Your task to perform on an android device: Open battery settings Image 0: 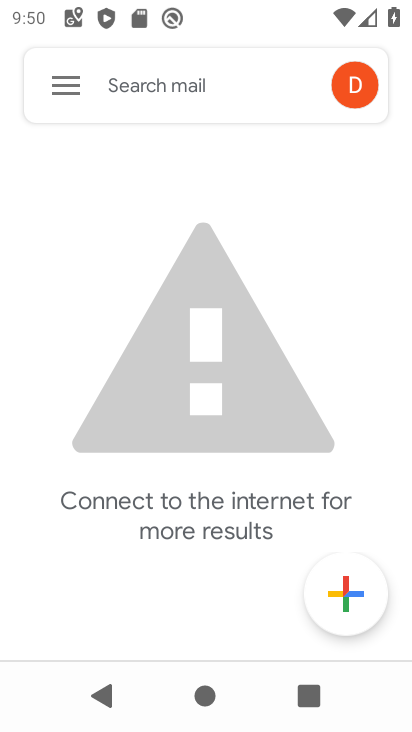
Step 0: press home button
Your task to perform on an android device: Open battery settings Image 1: 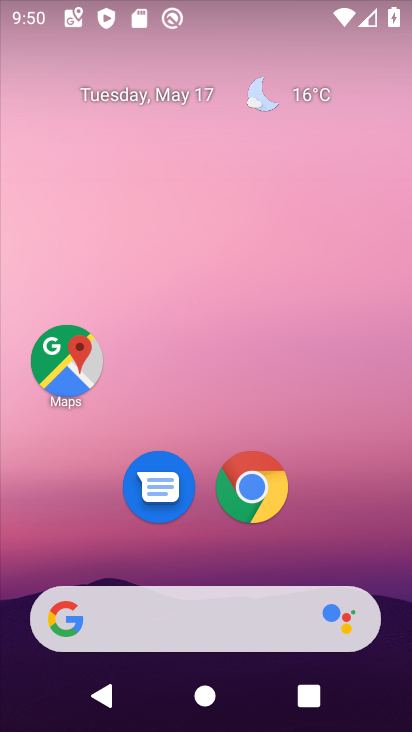
Step 1: drag from (213, 557) to (186, 41)
Your task to perform on an android device: Open battery settings Image 2: 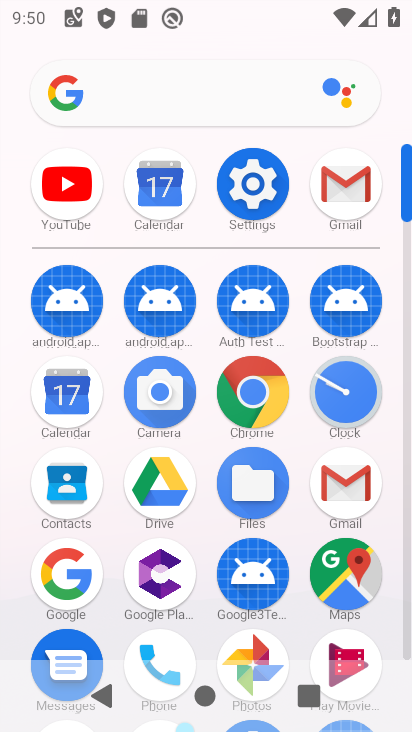
Step 2: click (255, 206)
Your task to perform on an android device: Open battery settings Image 3: 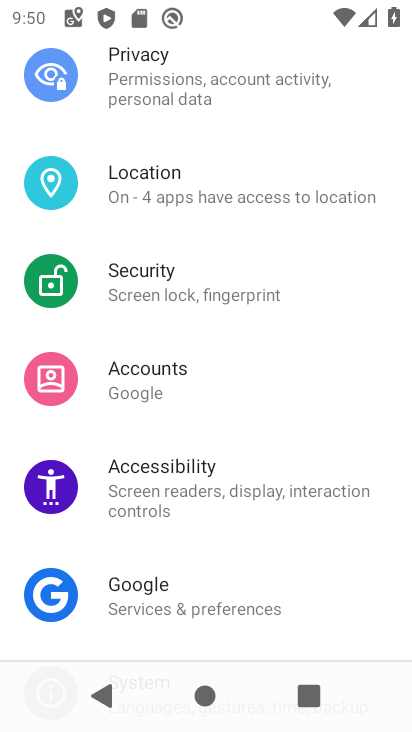
Step 3: drag from (182, 291) to (183, 555)
Your task to perform on an android device: Open battery settings Image 4: 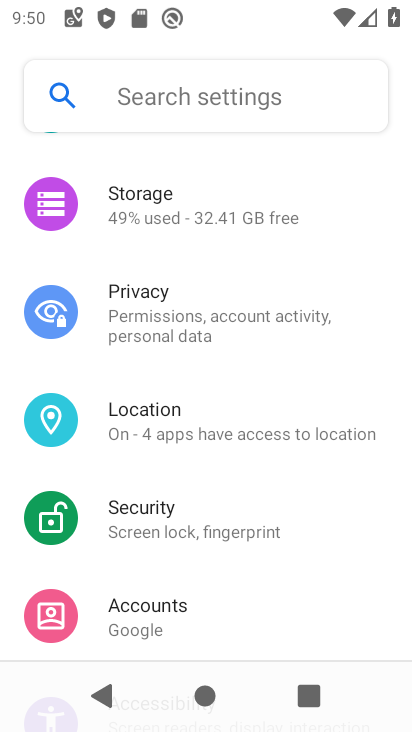
Step 4: drag from (142, 280) to (127, 567)
Your task to perform on an android device: Open battery settings Image 5: 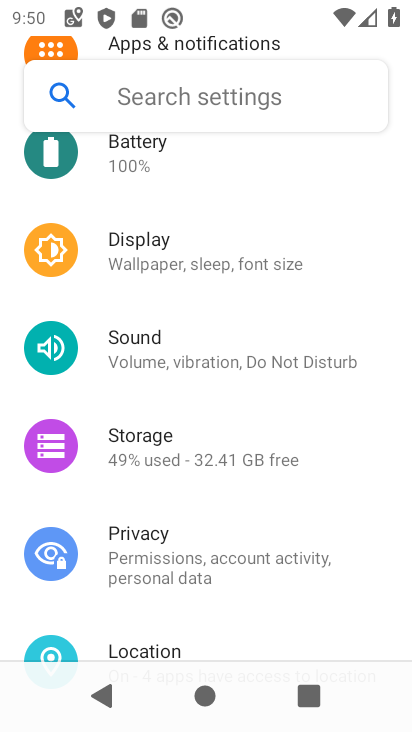
Step 5: click (152, 155)
Your task to perform on an android device: Open battery settings Image 6: 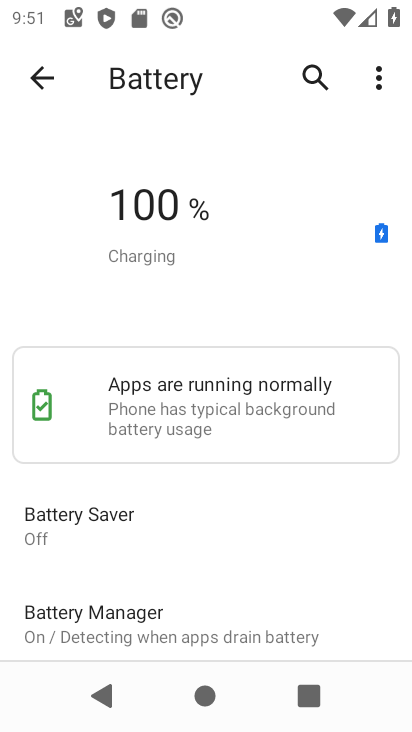
Step 6: task complete